Your task to perform on an android device: Go to internet settings Image 0: 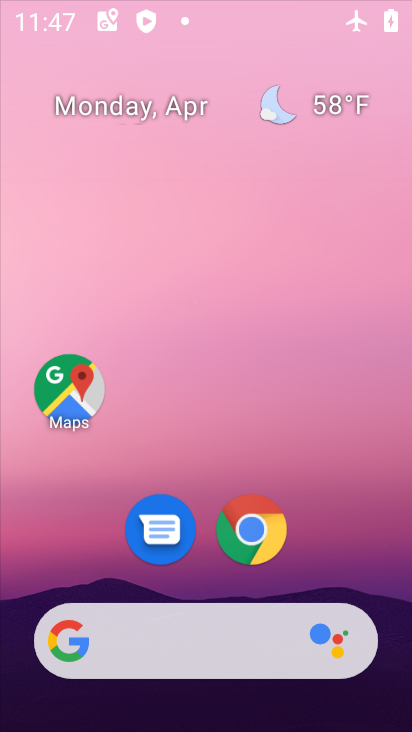
Step 0: click (221, 33)
Your task to perform on an android device: Go to internet settings Image 1: 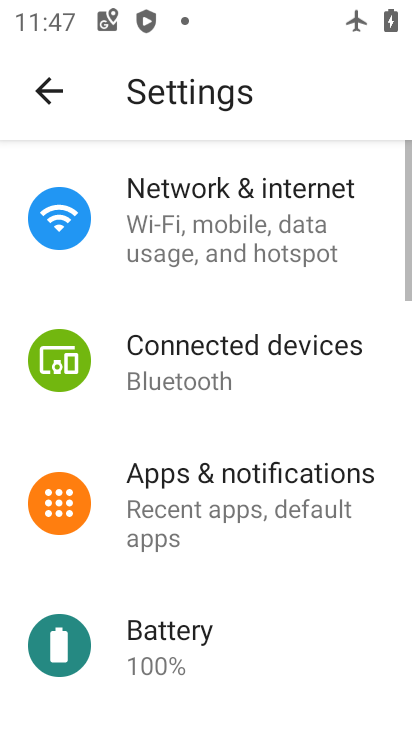
Step 1: press home button
Your task to perform on an android device: Go to internet settings Image 2: 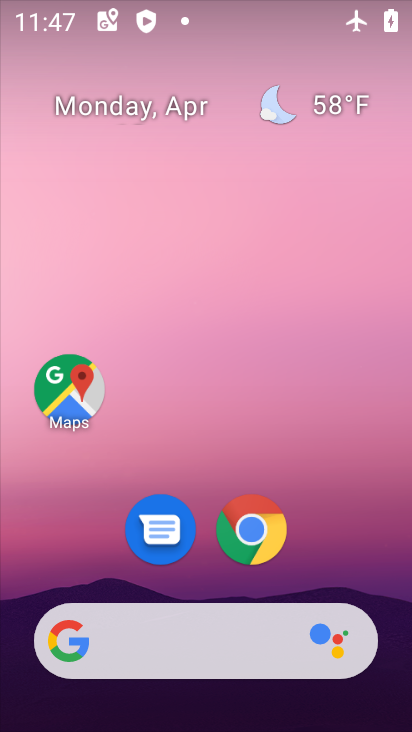
Step 2: drag from (392, 631) to (292, 82)
Your task to perform on an android device: Go to internet settings Image 3: 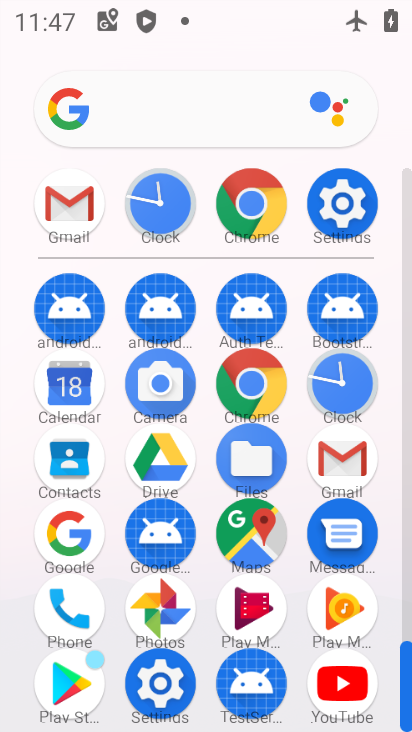
Step 3: click (345, 214)
Your task to perform on an android device: Go to internet settings Image 4: 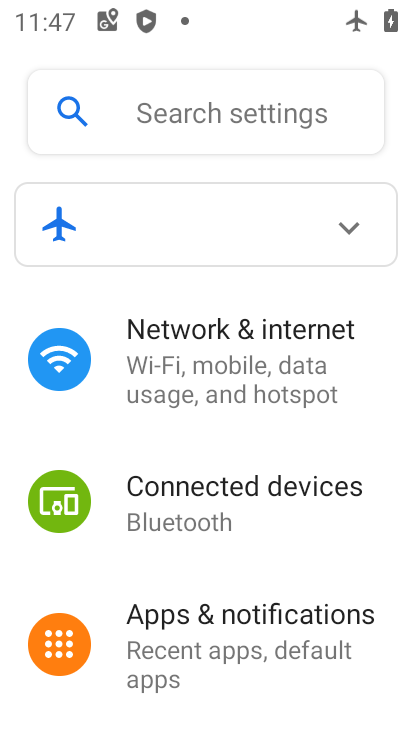
Step 4: click (267, 347)
Your task to perform on an android device: Go to internet settings Image 5: 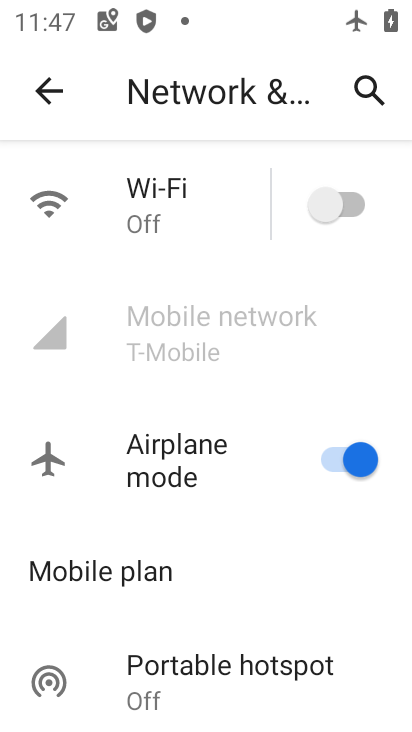
Step 5: task complete